Your task to perform on an android device: Search for pizza restaurants on Maps Image 0: 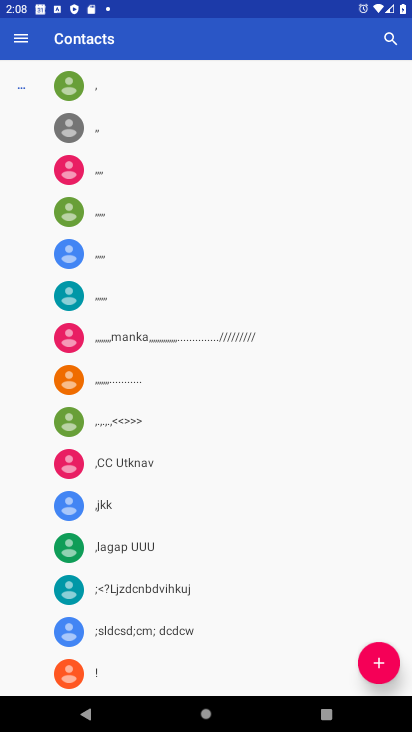
Step 0: press home button
Your task to perform on an android device: Search for pizza restaurants on Maps Image 1: 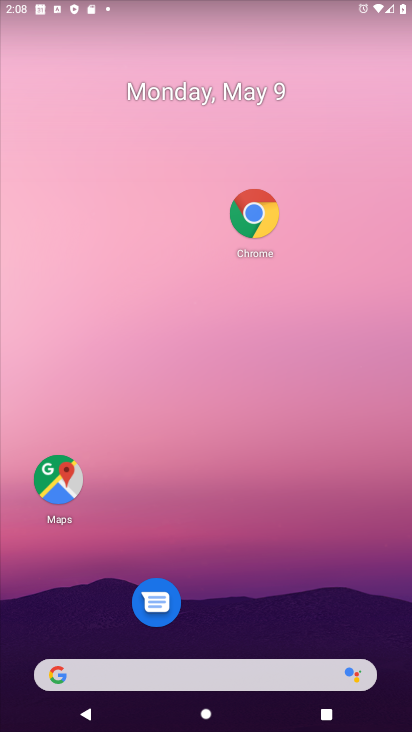
Step 1: click (32, 480)
Your task to perform on an android device: Search for pizza restaurants on Maps Image 2: 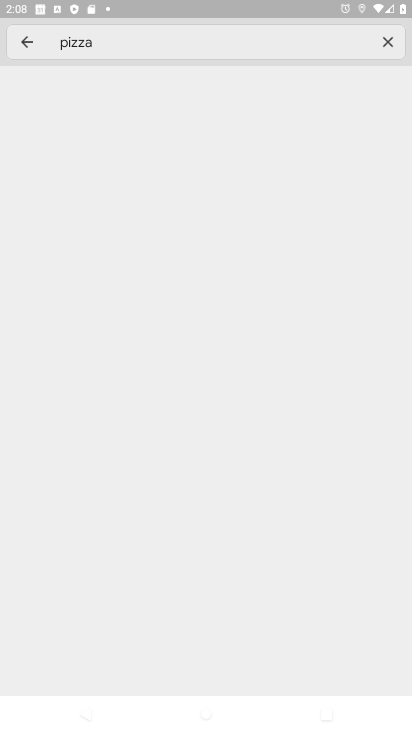
Step 2: click (256, 49)
Your task to perform on an android device: Search for pizza restaurants on Maps Image 3: 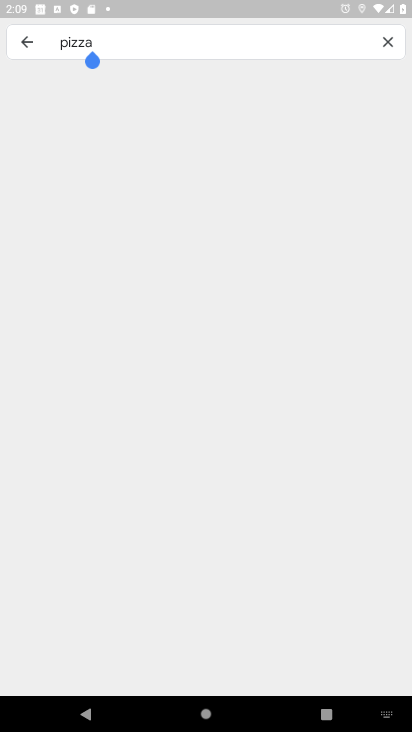
Step 3: click (256, 49)
Your task to perform on an android device: Search for pizza restaurants on Maps Image 4: 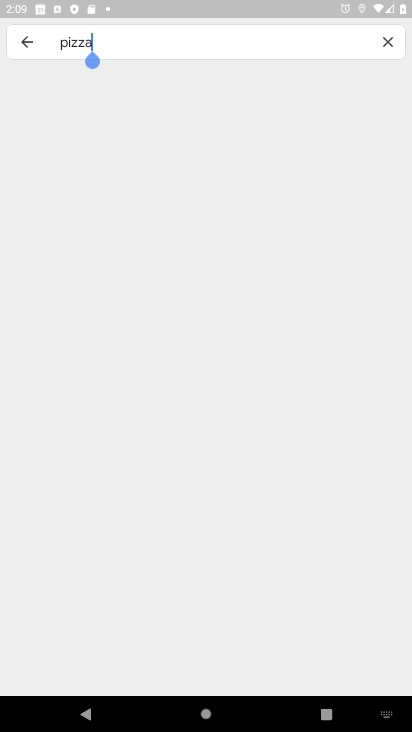
Step 4: click (256, 49)
Your task to perform on an android device: Search for pizza restaurants on Maps Image 5: 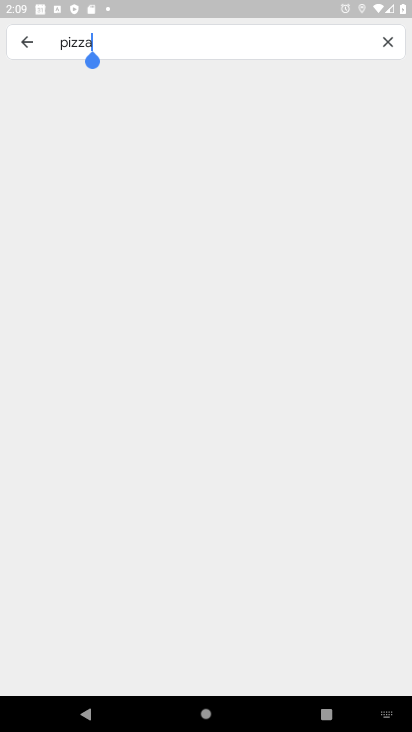
Step 5: task complete